Your task to perform on an android device: toggle location history Image 0: 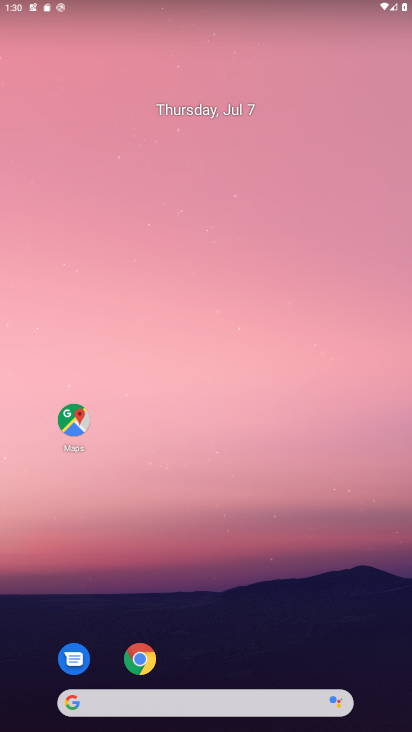
Step 0: drag from (201, 610) to (226, 86)
Your task to perform on an android device: toggle location history Image 1: 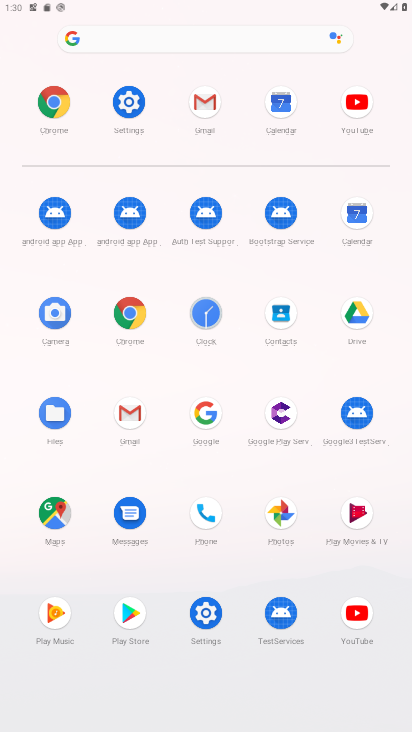
Step 1: click (129, 98)
Your task to perform on an android device: toggle location history Image 2: 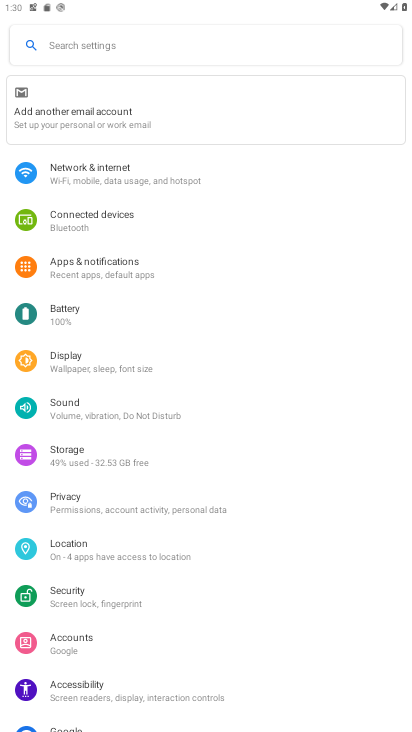
Step 2: click (115, 544)
Your task to perform on an android device: toggle location history Image 3: 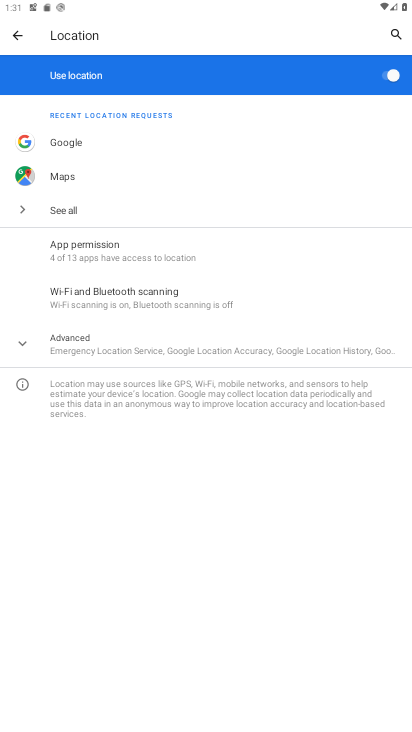
Step 3: drag from (193, 536) to (263, 256)
Your task to perform on an android device: toggle location history Image 4: 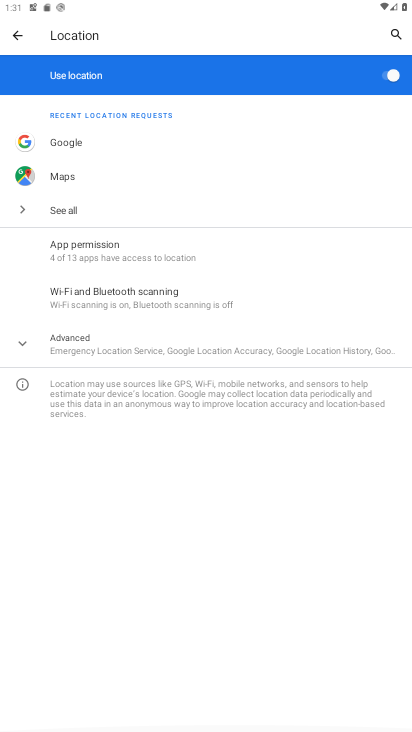
Step 4: click (108, 339)
Your task to perform on an android device: toggle location history Image 5: 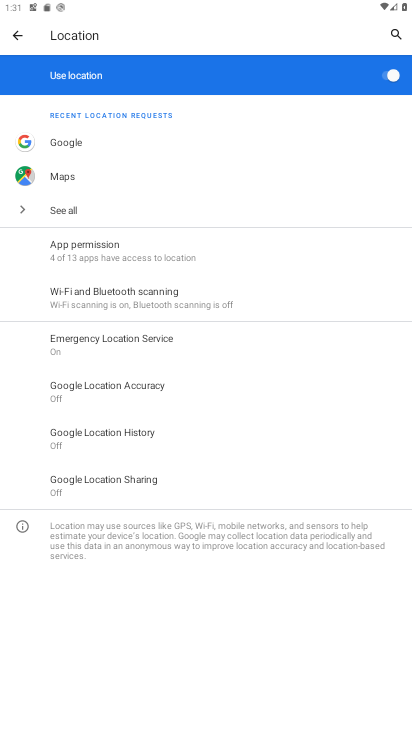
Step 5: click (133, 430)
Your task to perform on an android device: toggle location history Image 6: 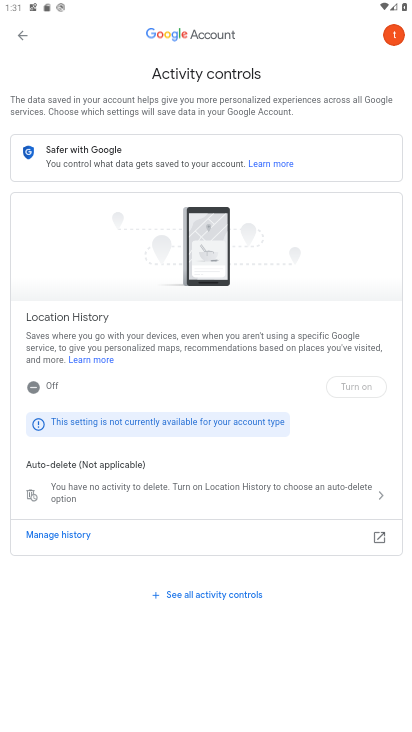
Step 6: click (337, 390)
Your task to perform on an android device: toggle location history Image 7: 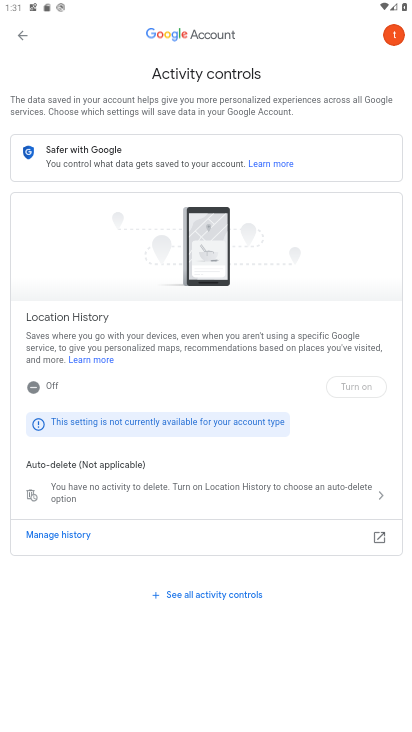
Step 7: task complete